Your task to perform on an android device: Open CNN.com Image 0: 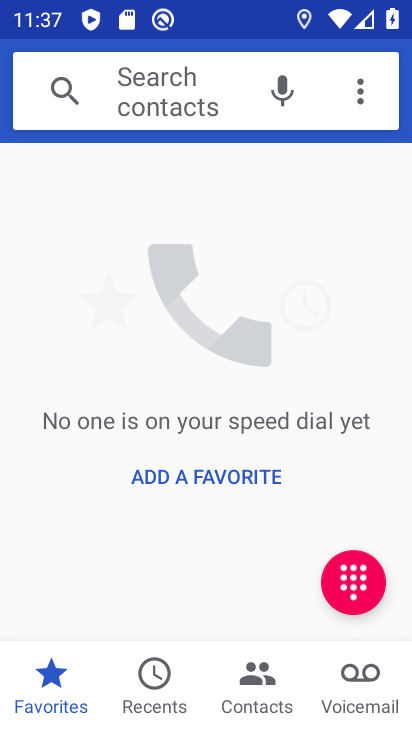
Step 0: press home button
Your task to perform on an android device: Open CNN.com Image 1: 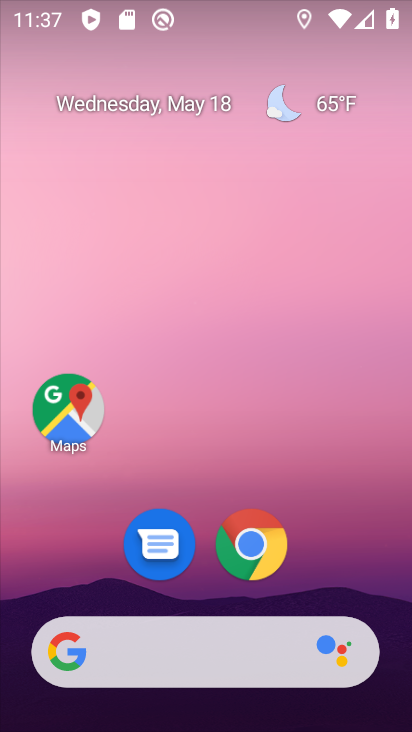
Step 1: drag from (360, 575) to (357, 130)
Your task to perform on an android device: Open CNN.com Image 2: 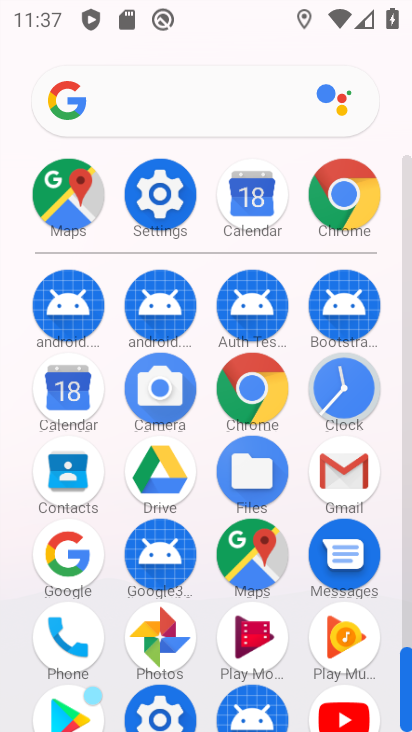
Step 2: click (272, 393)
Your task to perform on an android device: Open CNN.com Image 3: 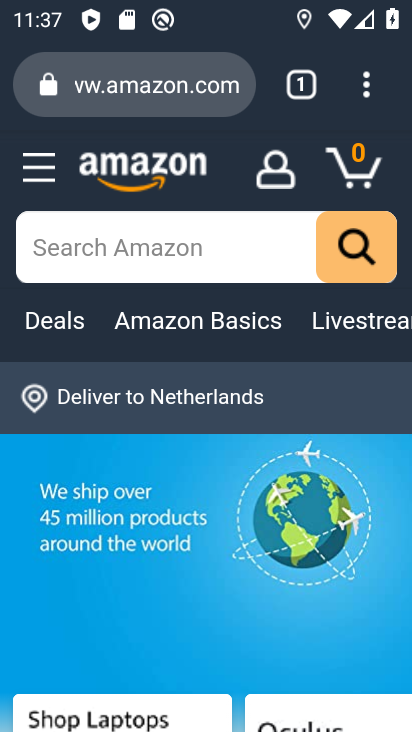
Step 3: press back button
Your task to perform on an android device: Open CNN.com Image 4: 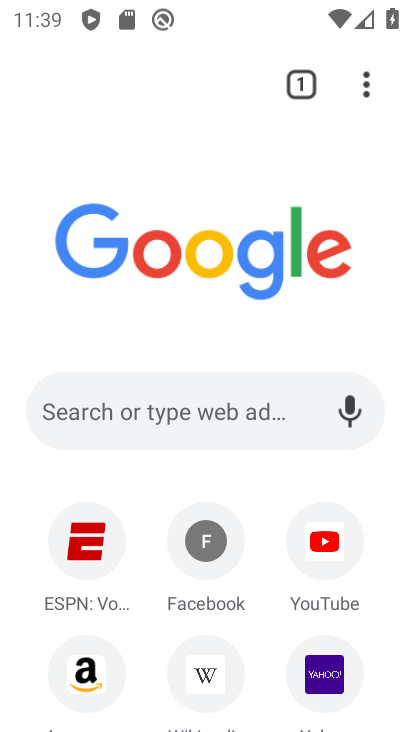
Step 4: drag from (386, 513) to (389, 313)
Your task to perform on an android device: Open CNN.com Image 5: 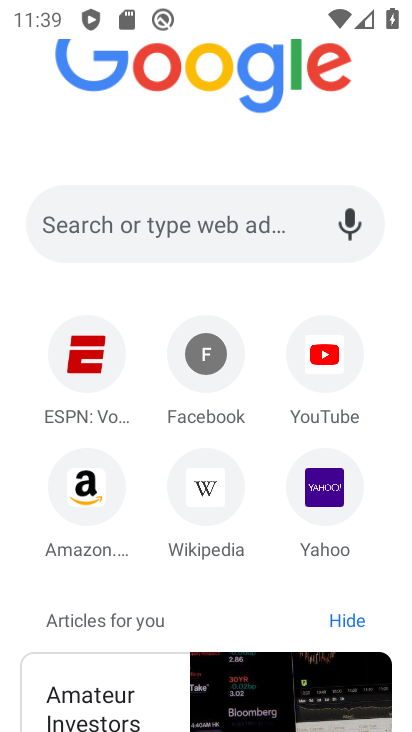
Step 5: click (237, 238)
Your task to perform on an android device: Open CNN.com Image 6: 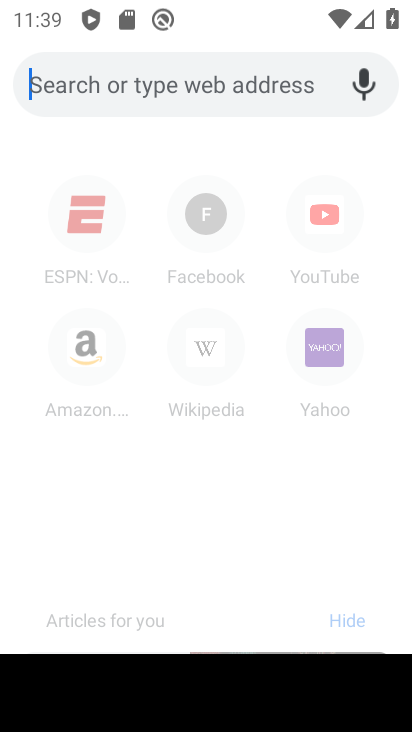
Step 6: type "xnn.xom"
Your task to perform on an android device: Open CNN.com Image 7: 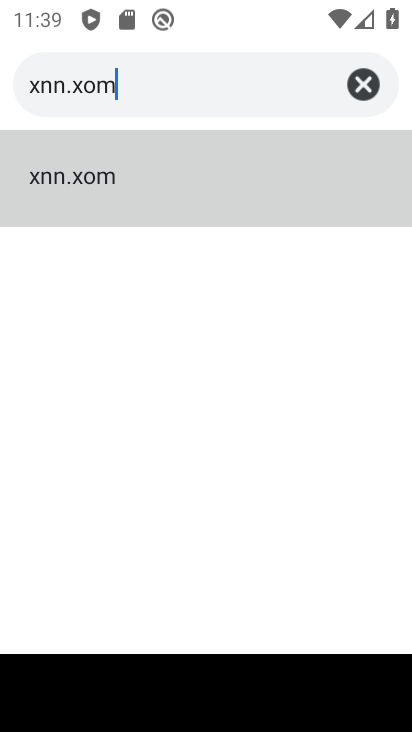
Step 7: click (363, 81)
Your task to perform on an android device: Open CNN.com Image 8: 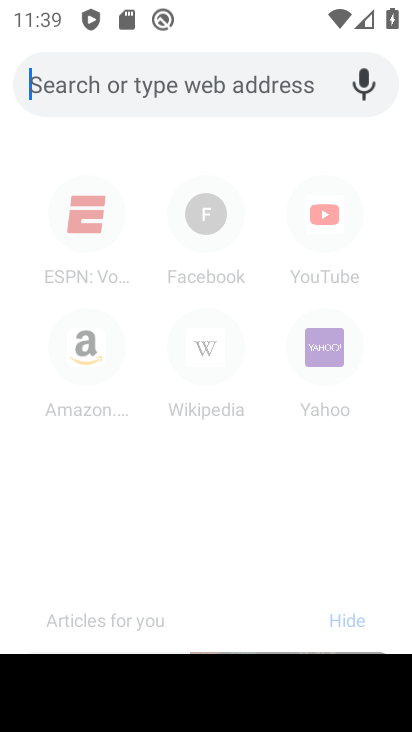
Step 8: click (192, 88)
Your task to perform on an android device: Open CNN.com Image 9: 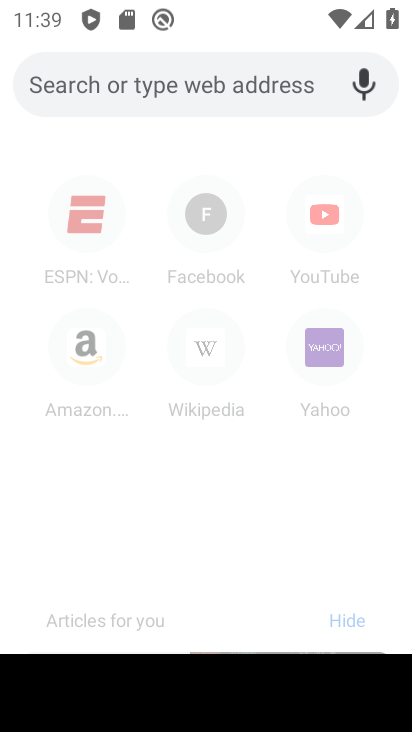
Step 9: type "cnn.com"
Your task to perform on an android device: Open CNN.com Image 10: 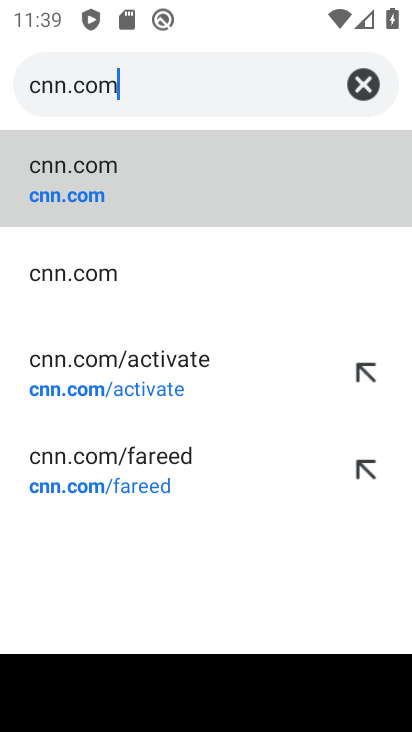
Step 10: click (216, 186)
Your task to perform on an android device: Open CNN.com Image 11: 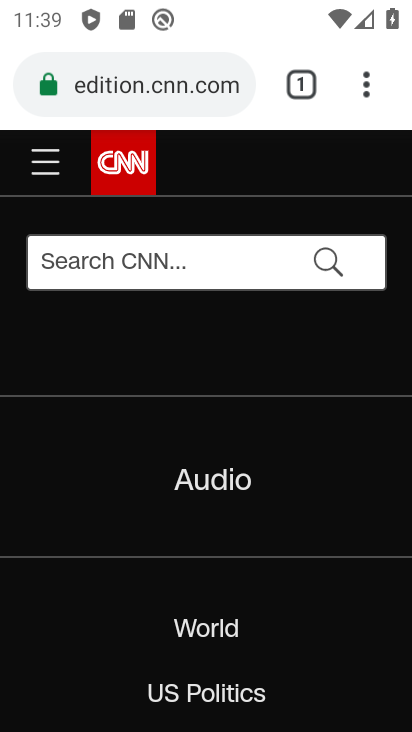
Step 11: task complete